Your task to perform on an android device: turn on priority inbox in the gmail app Image 0: 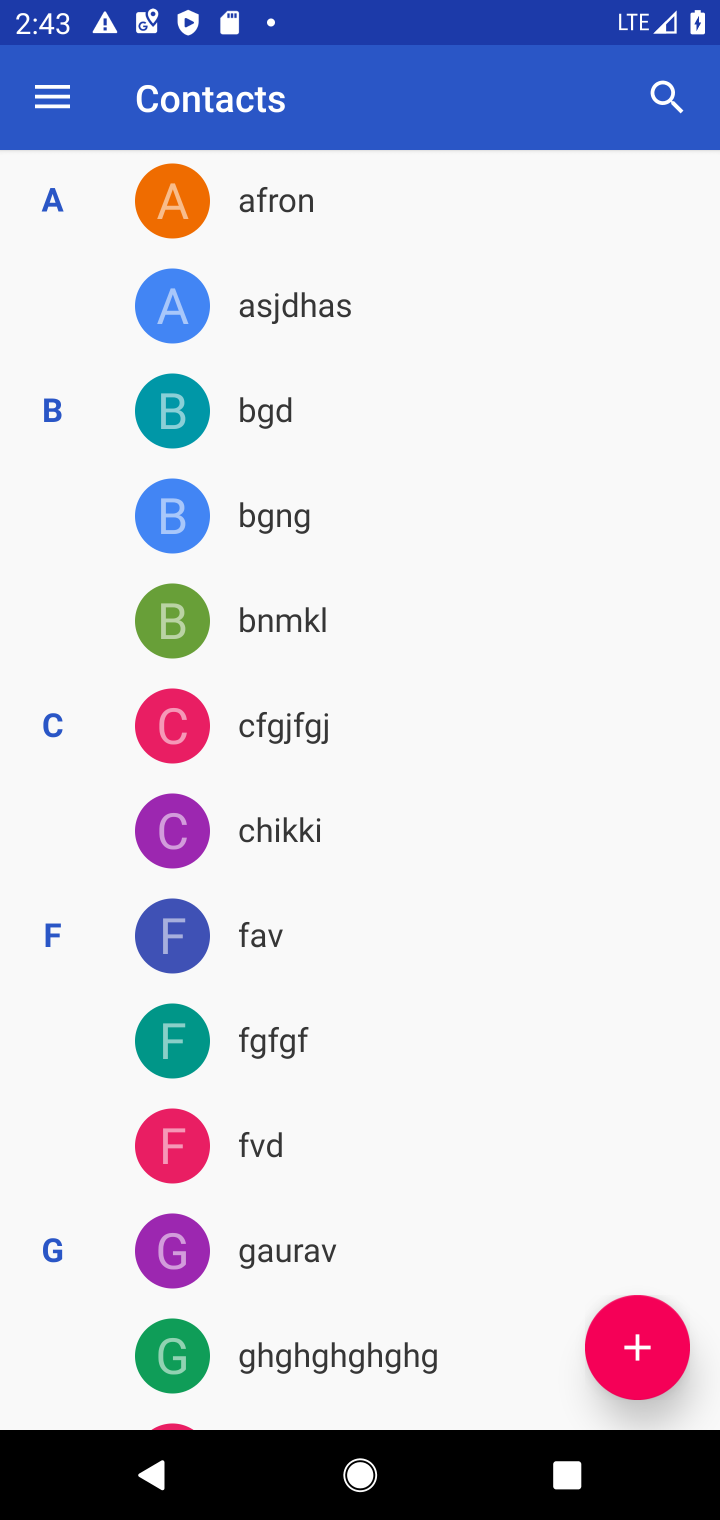
Step 0: press back button
Your task to perform on an android device: turn on priority inbox in the gmail app Image 1: 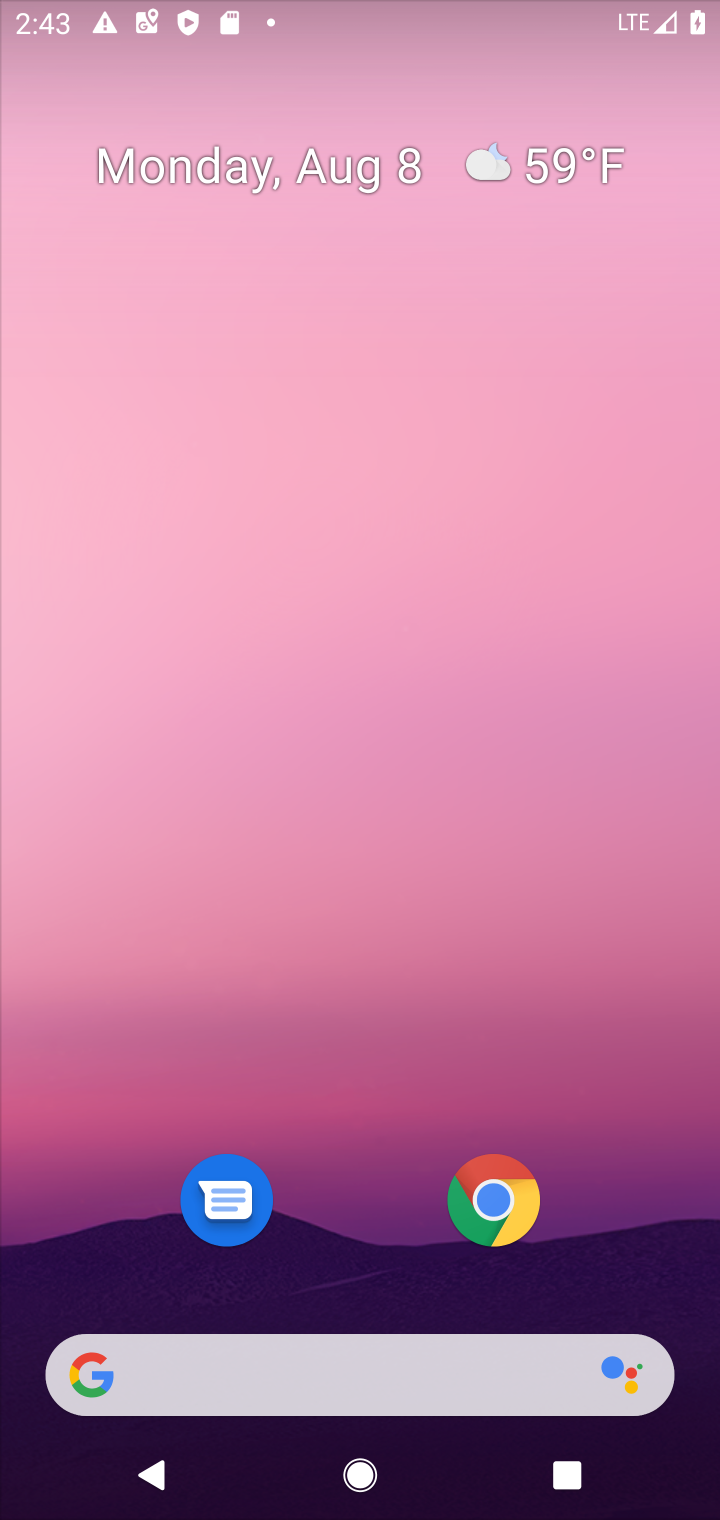
Step 1: drag from (374, 874) to (452, 28)
Your task to perform on an android device: turn on priority inbox in the gmail app Image 2: 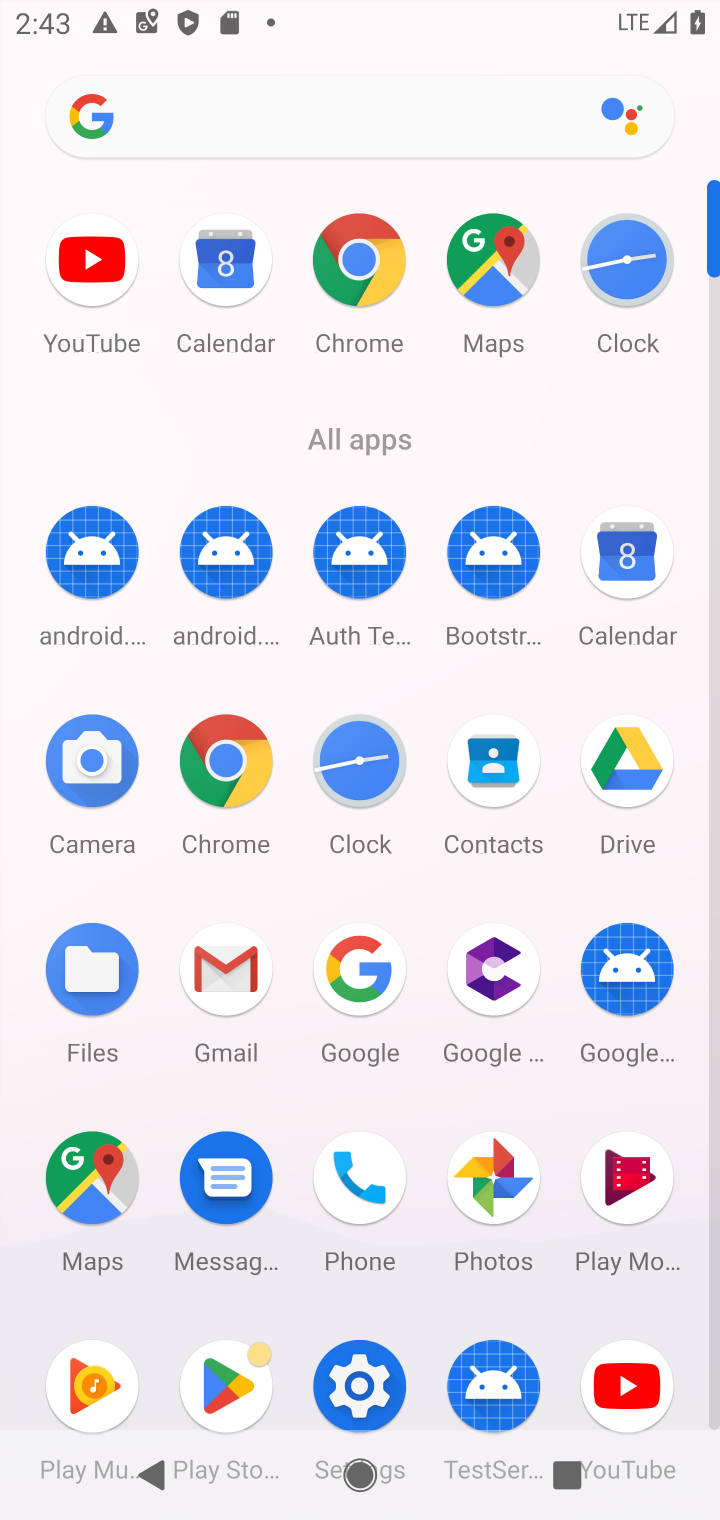
Step 2: click (201, 975)
Your task to perform on an android device: turn on priority inbox in the gmail app Image 3: 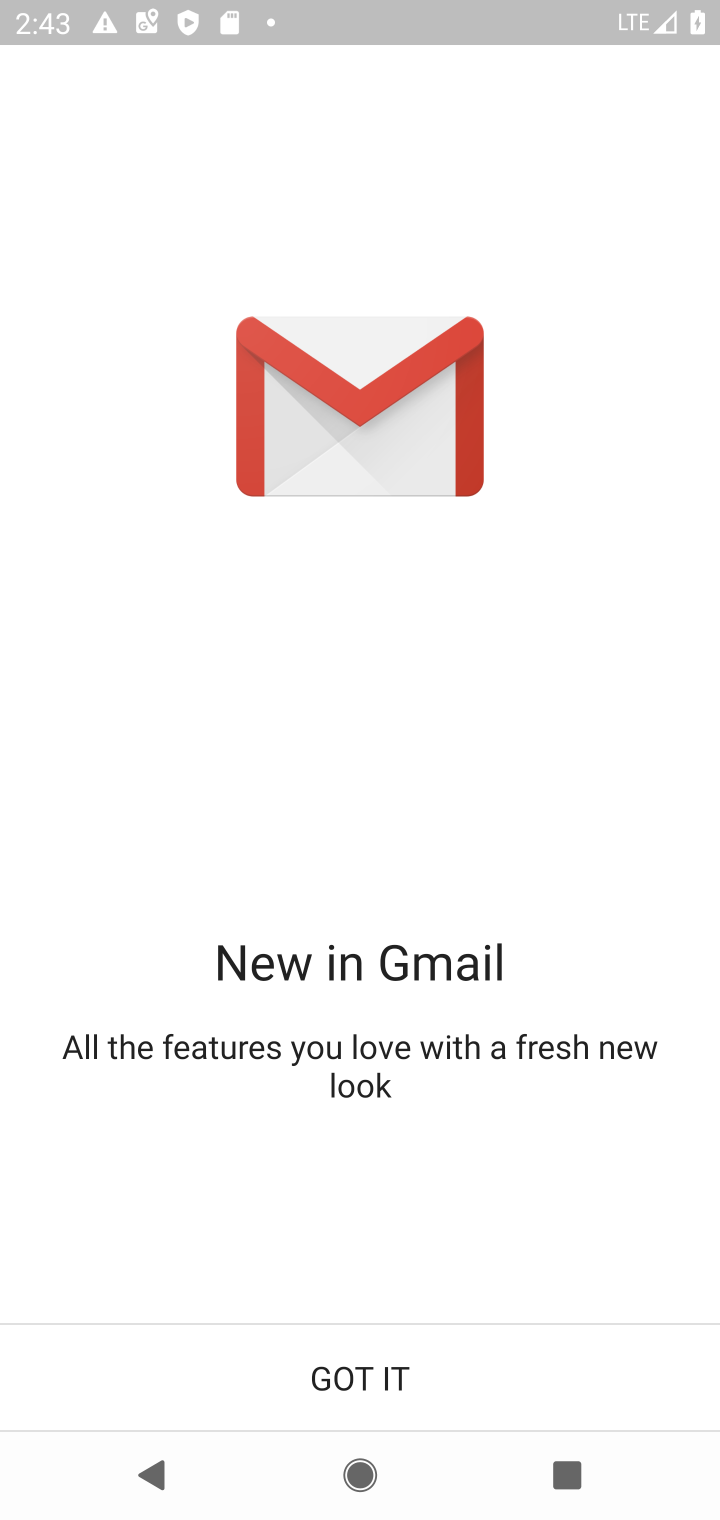
Step 3: click (413, 1354)
Your task to perform on an android device: turn on priority inbox in the gmail app Image 4: 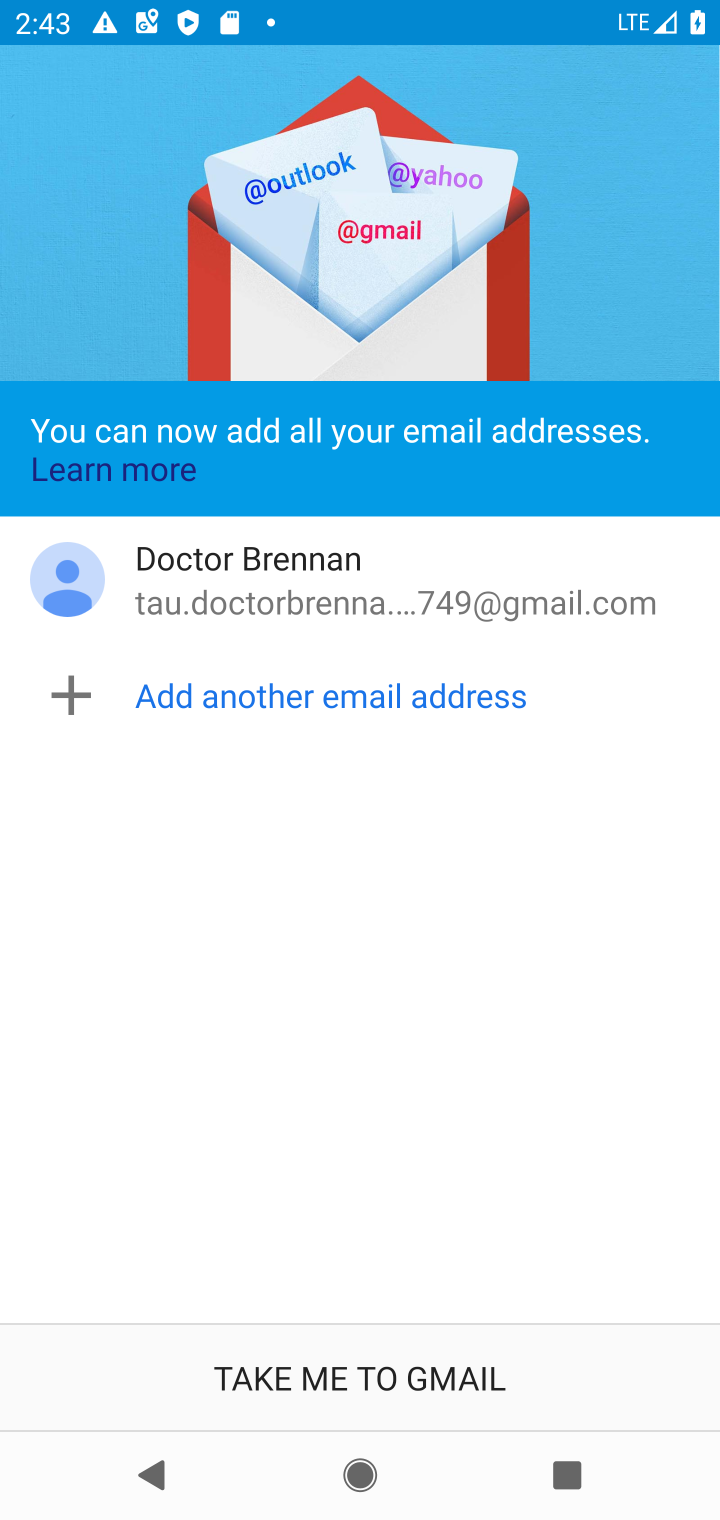
Step 4: click (384, 1362)
Your task to perform on an android device: turn on priority inbox in the gmail app Image 5: 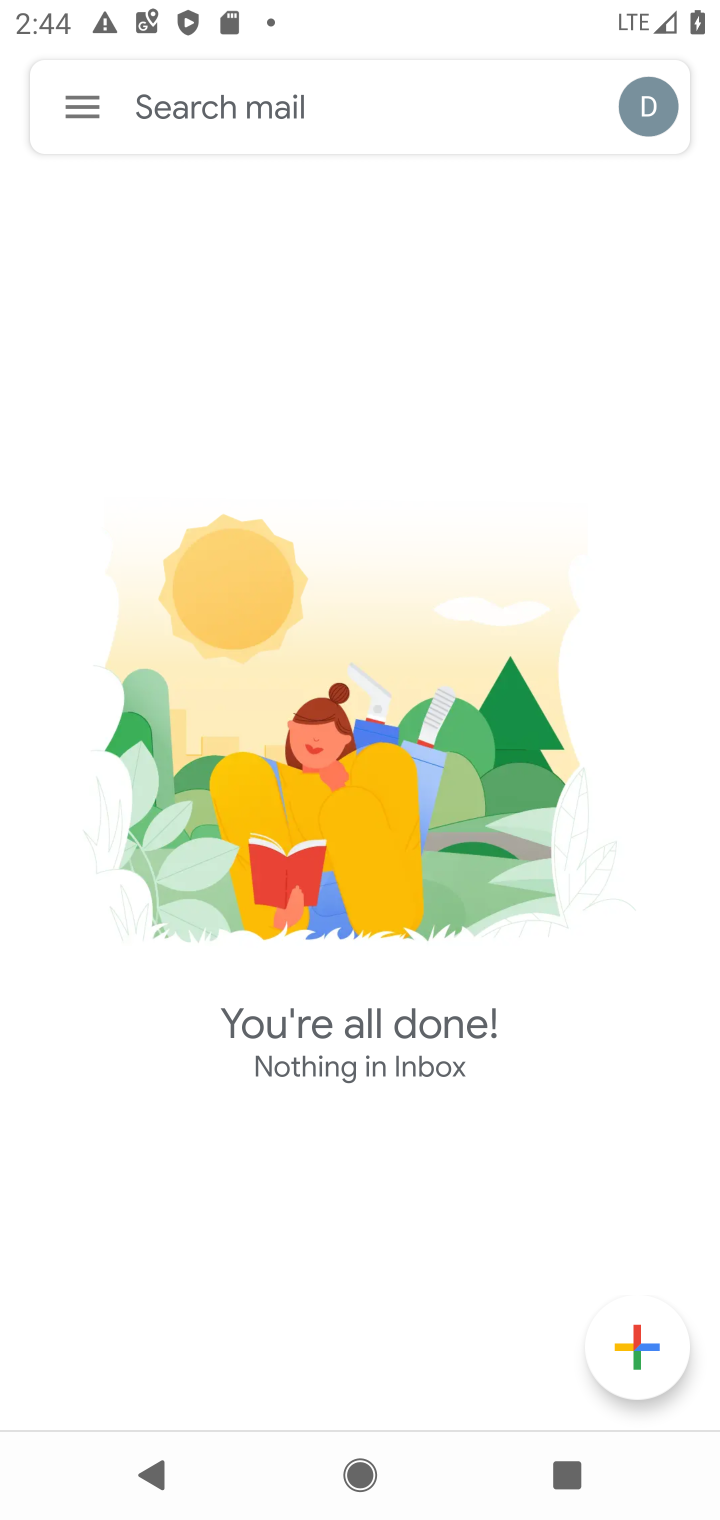
Step 5: click (83, 99)
Your task to perform on an android device: turn on priority inbox in the gmail app Image 6: 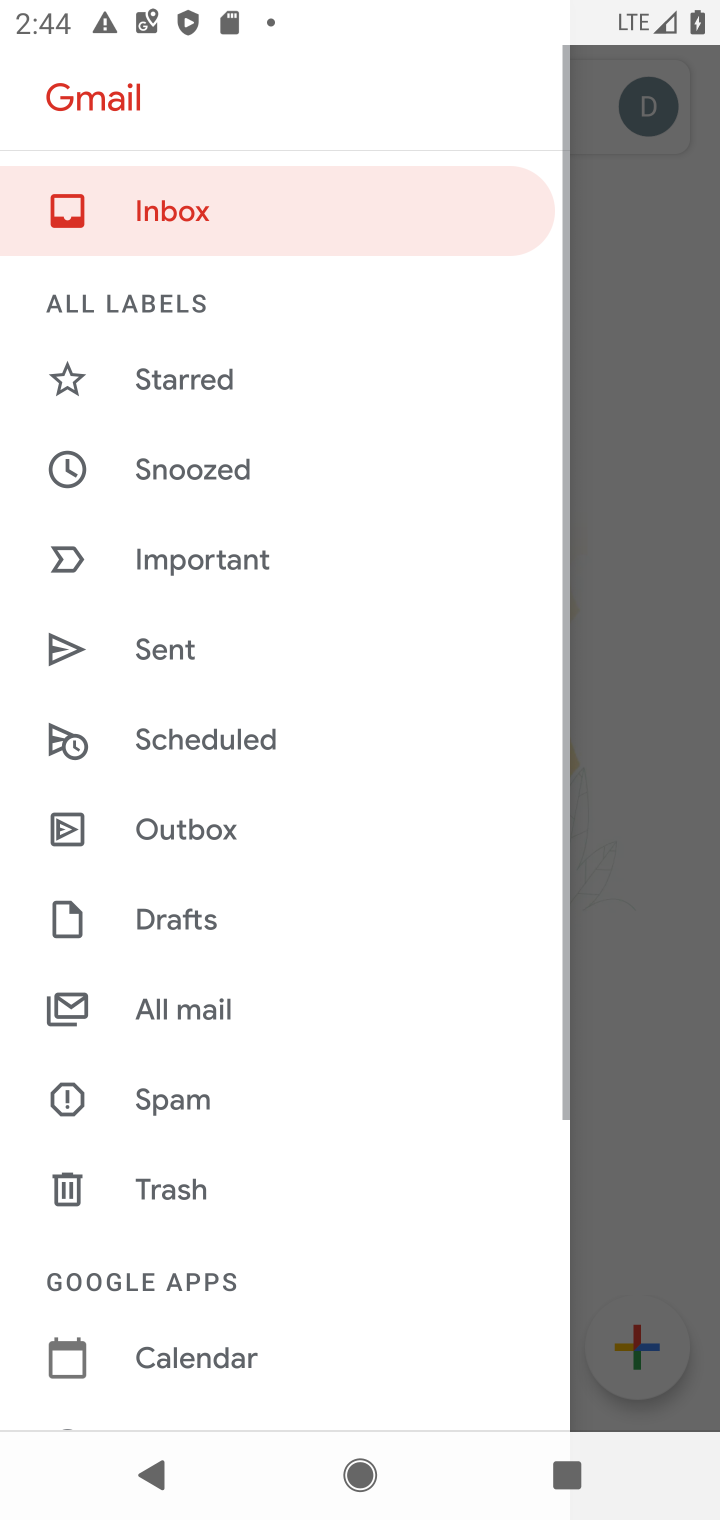
Step 6: drag from (331, 1172) to (416, 240)
Your task to perform on an android device: turn on priority inbox in the gmail app Image 7: 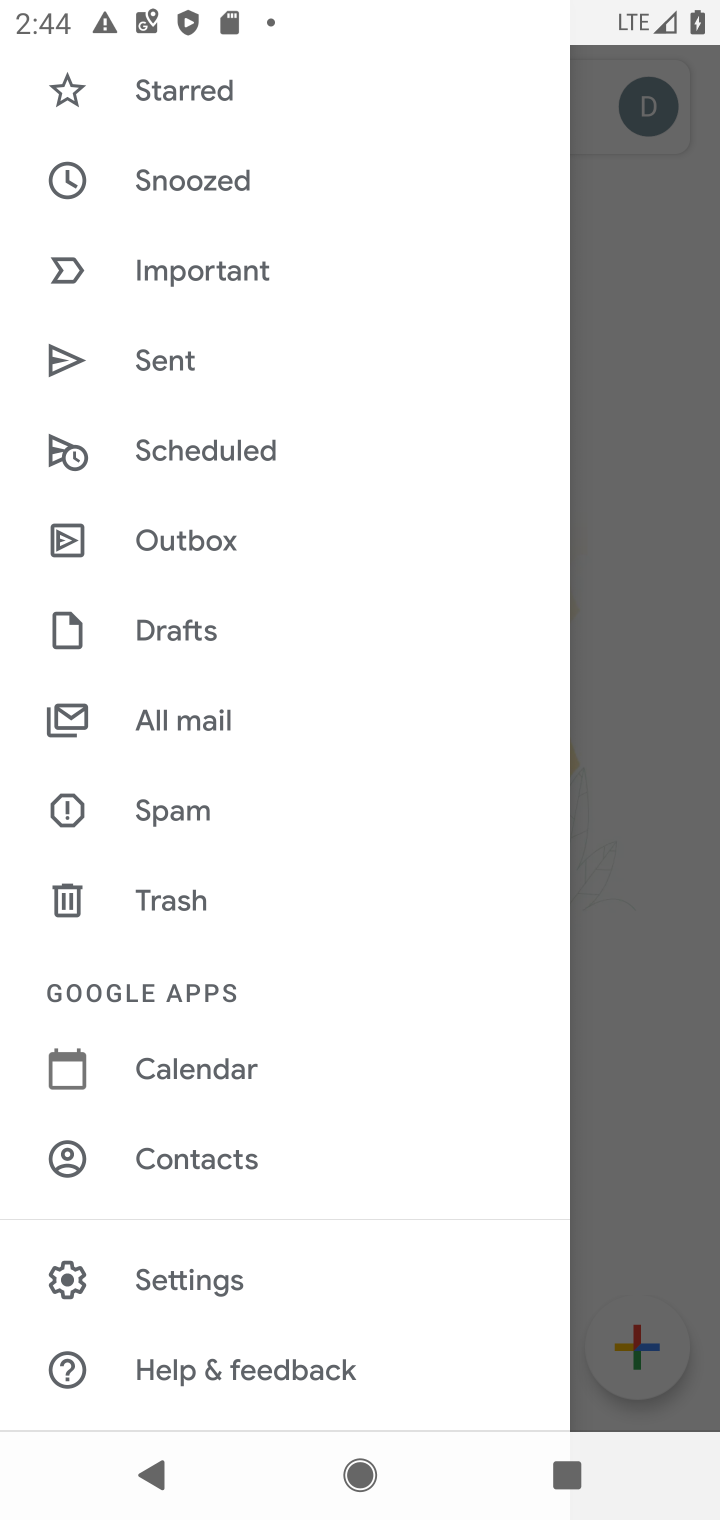
Step 7: click (197, 1293)
Your task to perform on an android device: turn on priority inbox in the gmail app Image 8: 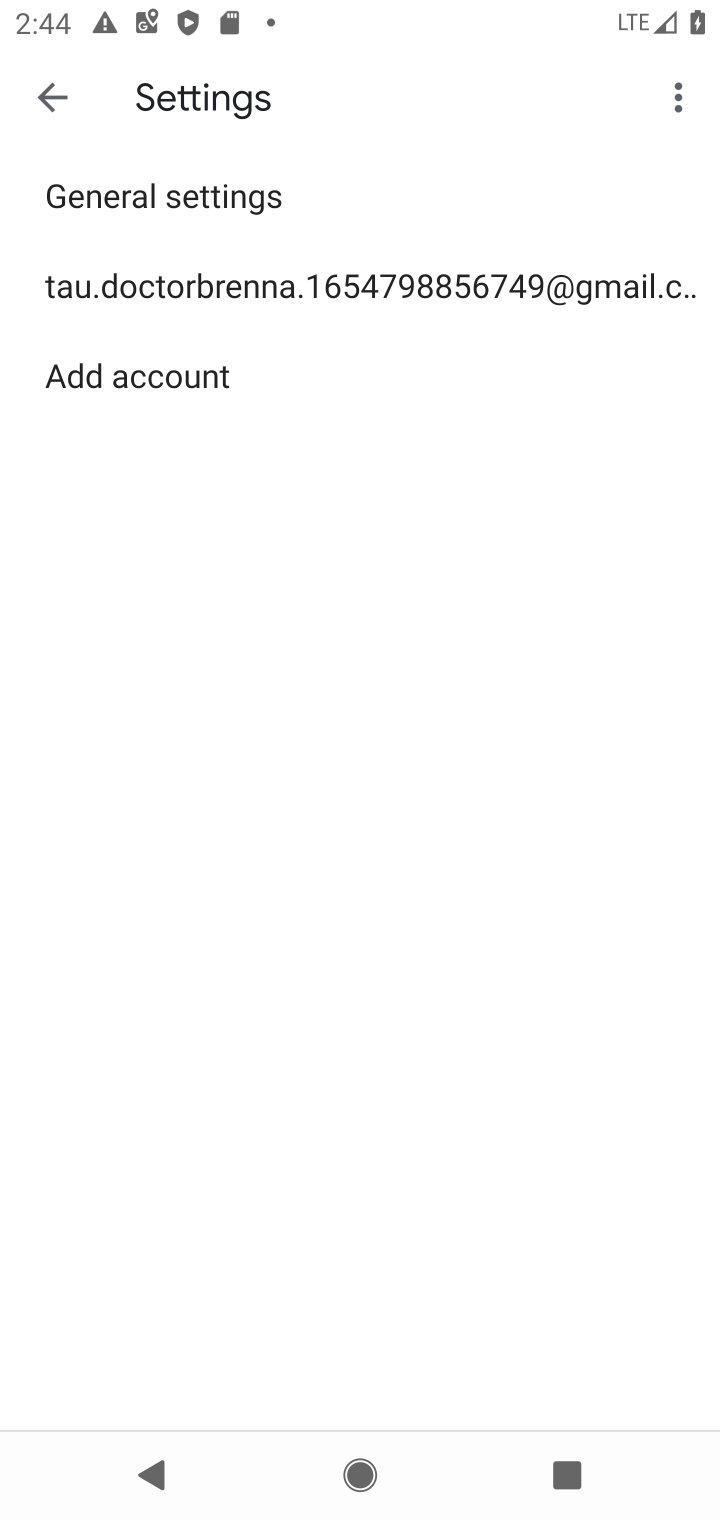
Step 8: click (272, 293)
Your task to perform on an android device: turn on priority inbox in the gmail app Image 9: 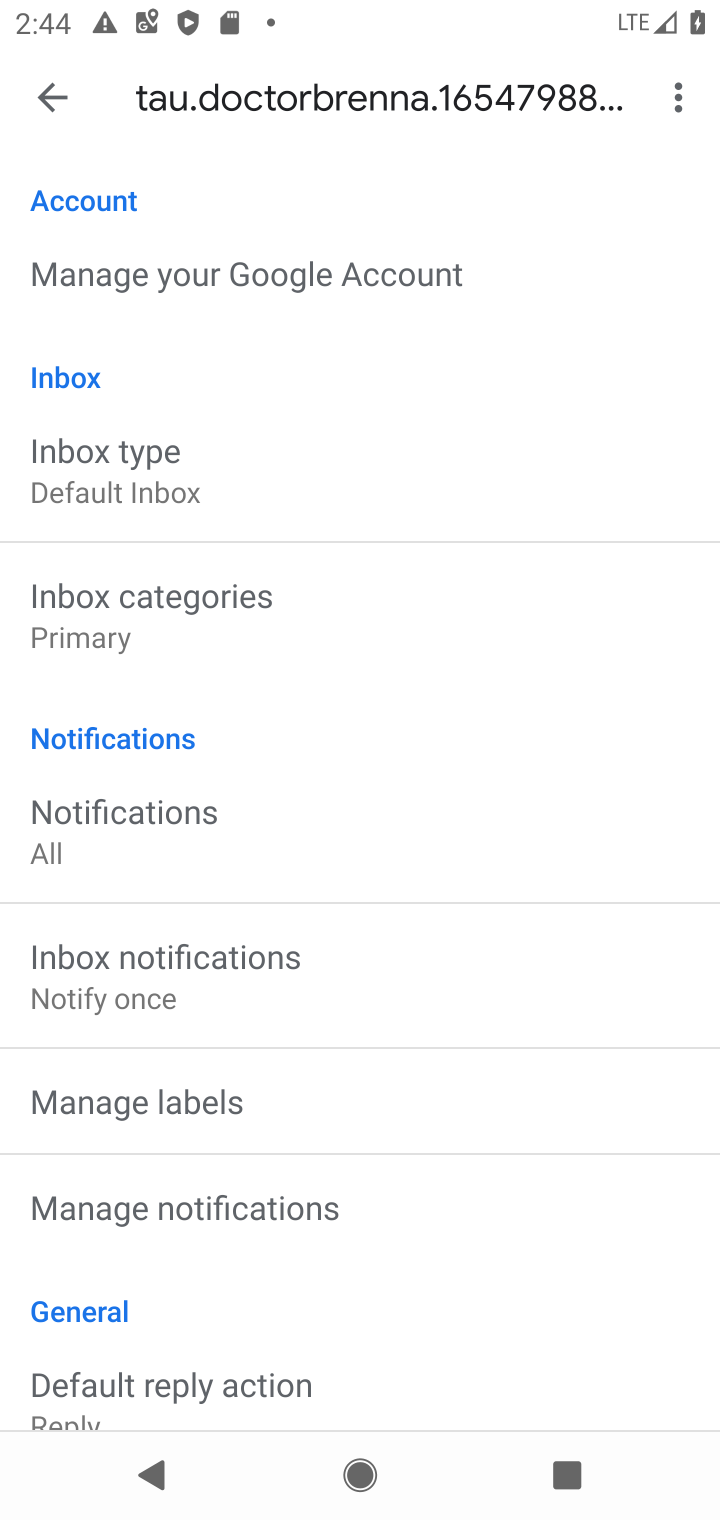
Step 9: click (160, 453)
Your task to perform on an android device: turn on priority inbox in the gmail app Image 10: 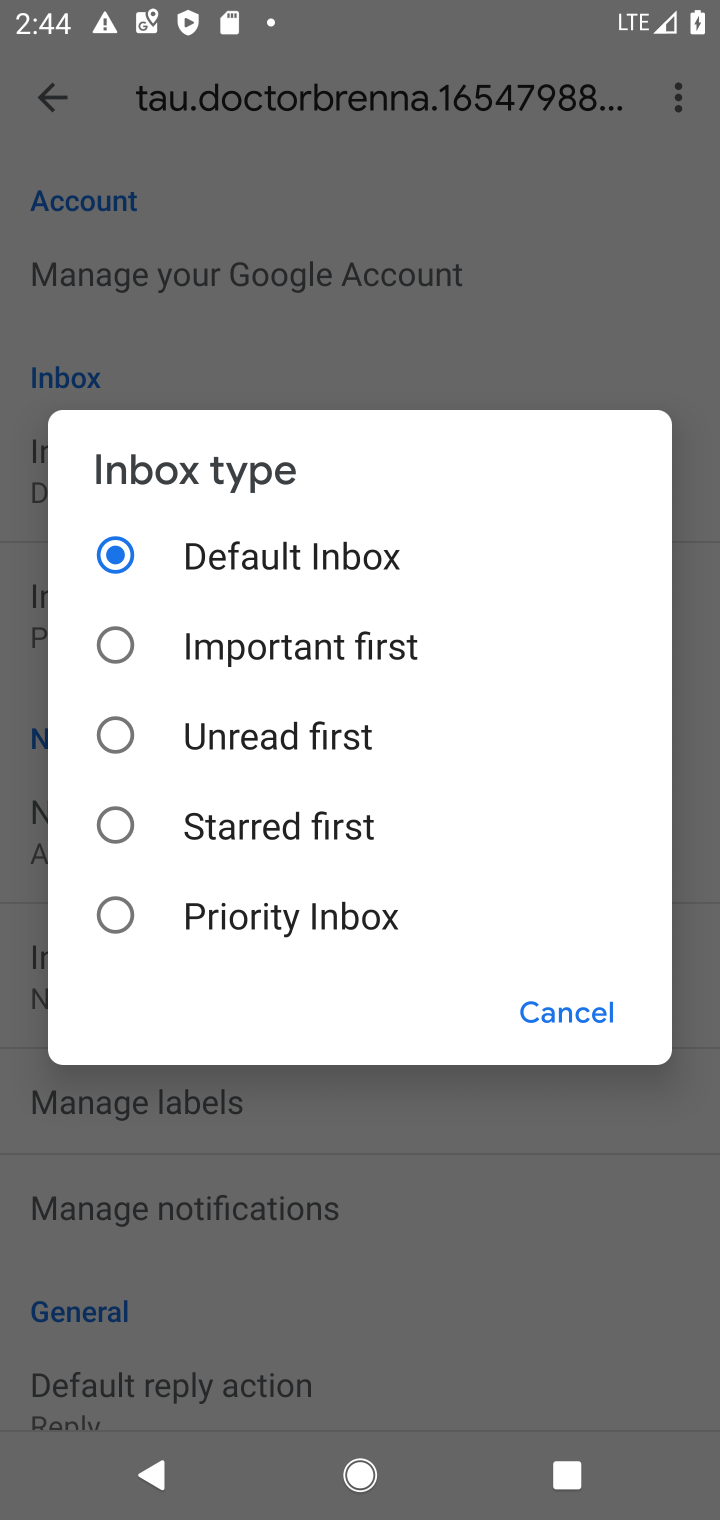
Step 10: click (151, 915)
Your task to perform on an android device: turn on priority inbox in the gmail app Image 11: 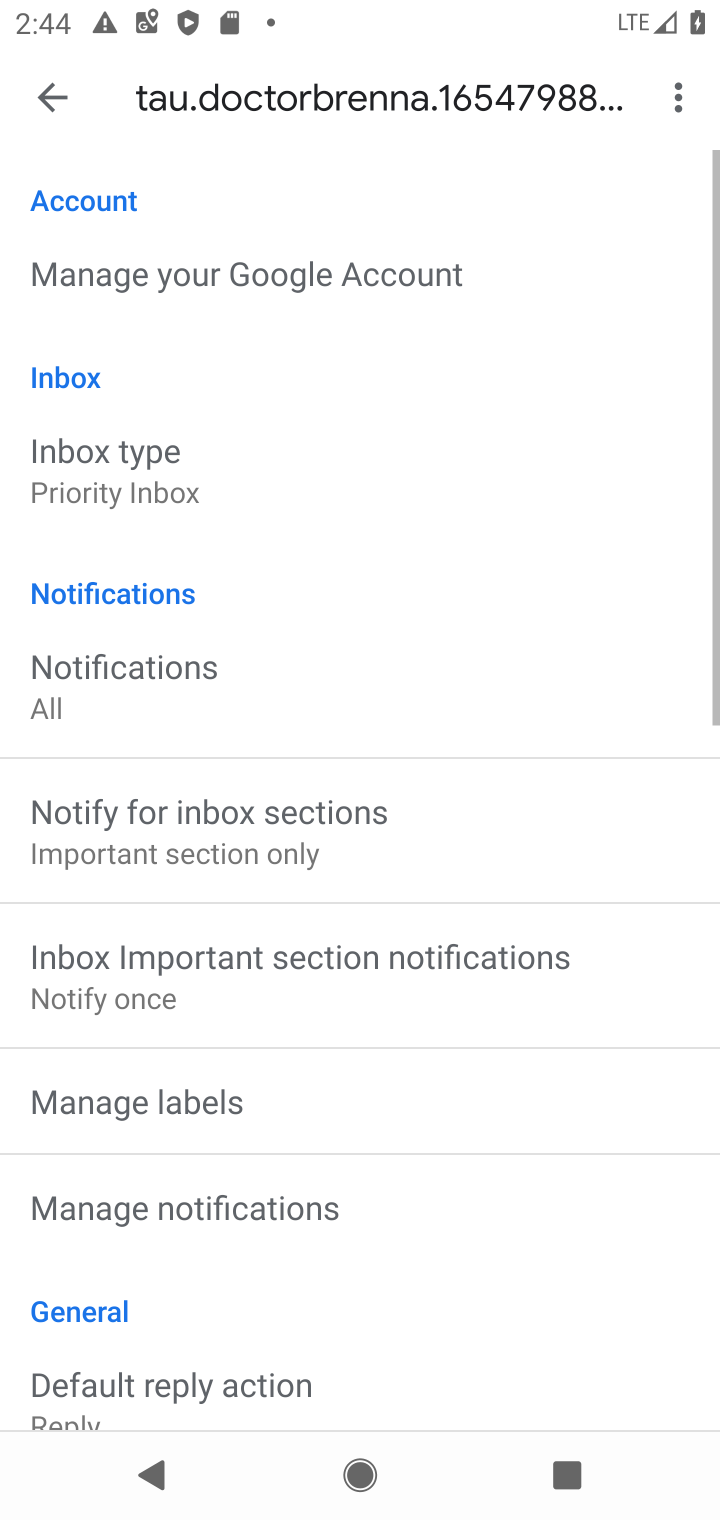
Step 11: task complete